Your task to perform on an android device: toggle data saver in the chrome app Image 0: 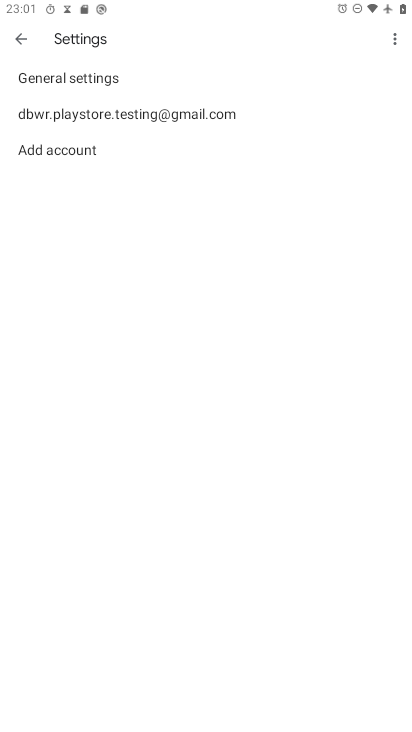
Step 0: press home button
Your task to perform on an android device: toggle data saver in the chrome app Image 1: 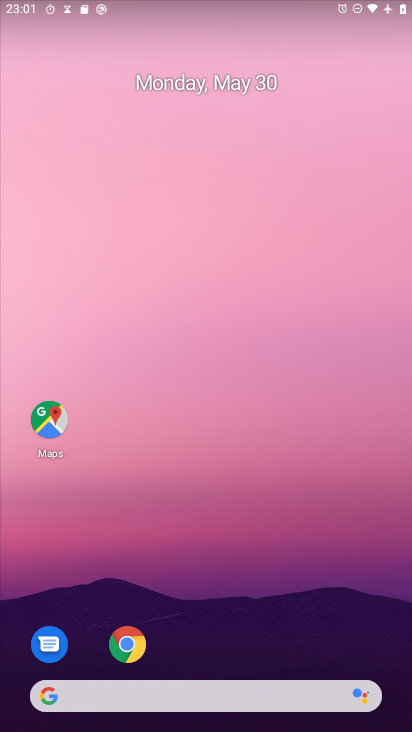
Step 1: click (126, 651)
Your task to perform on an android device: toggle data saver in the chrome app Image 2: 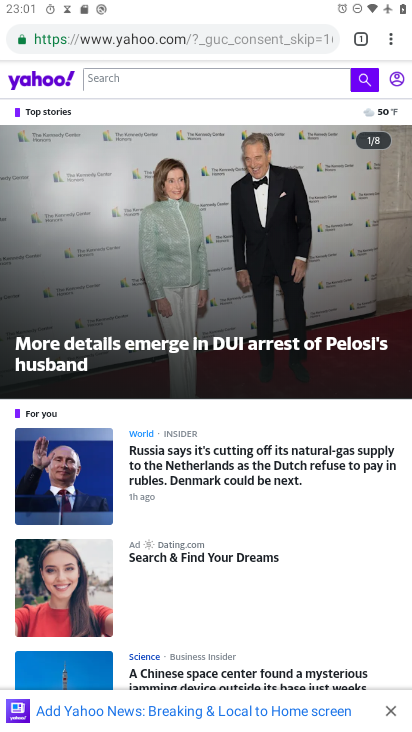
Step 2: click (381, 37)
Your task to perform on an android device: toggle data saver in the chrome app Image 3: 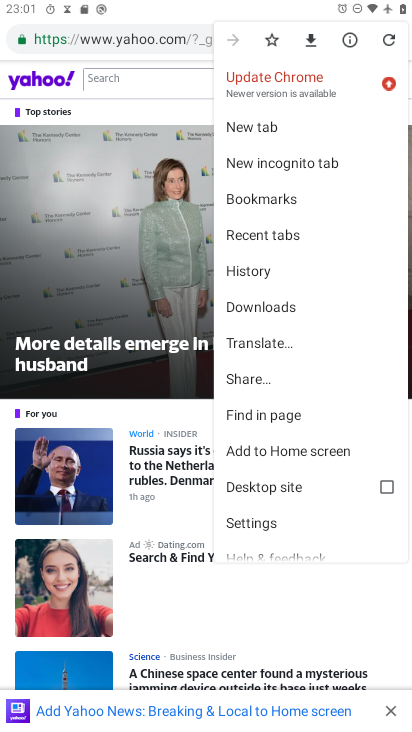
Step 3: click (262, 521)
Your task to perform on an android device: toggle data saver in the chrome app Image 4: 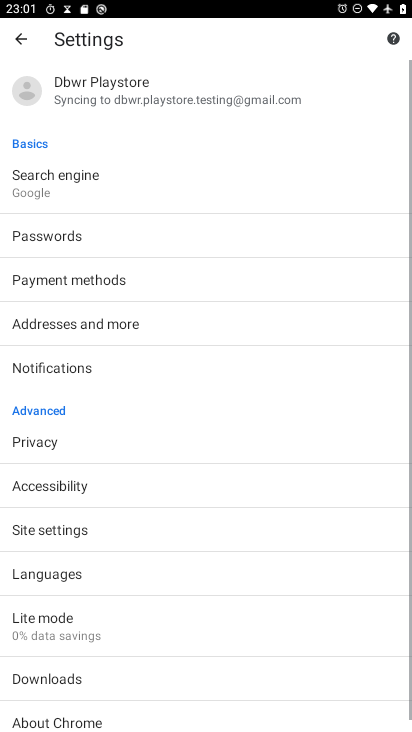
Step 4: drag from (203, 584) to (179, 268)
Your task to perform on an android device: toggle data saver in the chrome app Image 5: 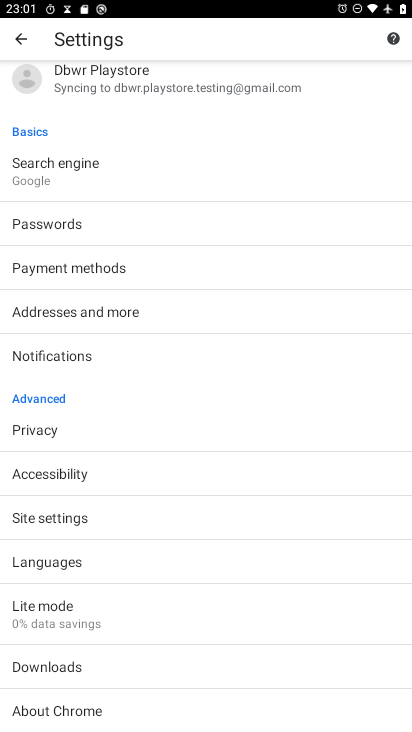
Step 5: click (64, 609)
Your task to perform on an android device: toggle data saver in the chrome app Image 6: 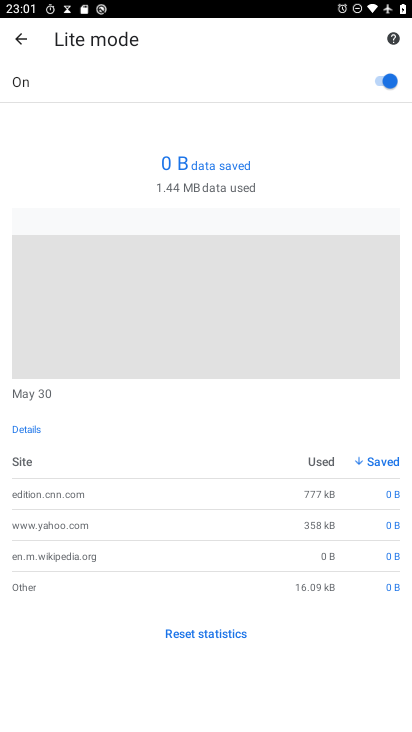
Step 6: click (384, 86)
Your task to perform on an android device: toggle data saver in the chrome app Image 7: 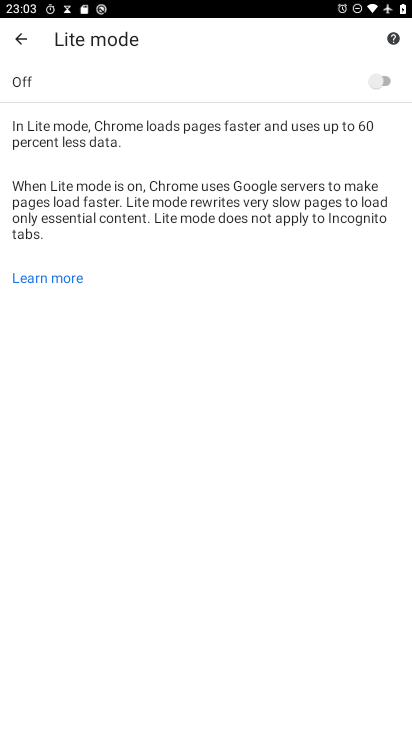
Step 7: task complete